Your task to perform on an android device: Go to Google Image 0: 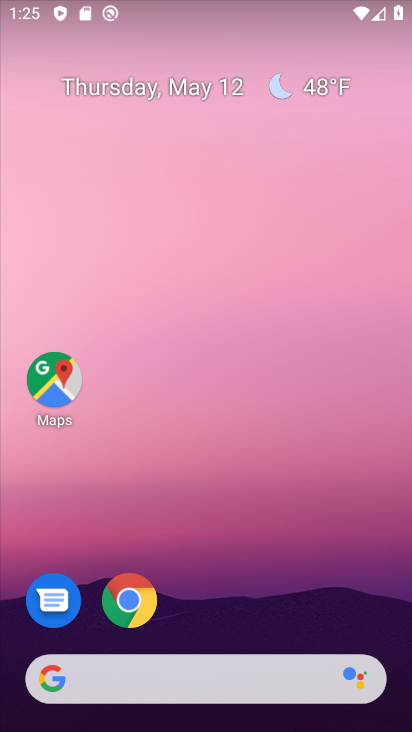
Step 0: drag from (240, 656) to (367, 182)
Your task to perform on an android device: Go to Google Image 1: 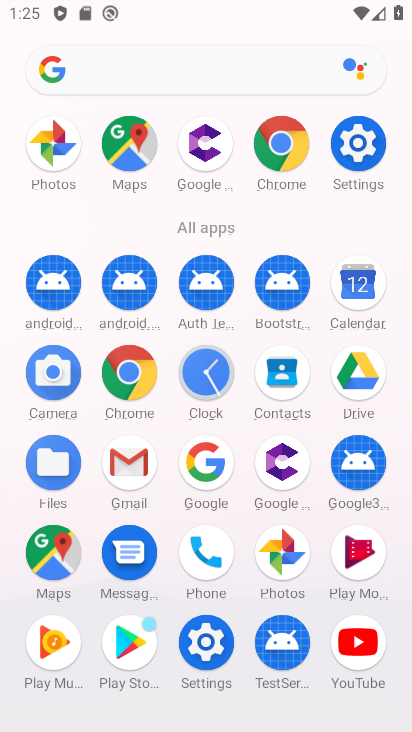
Step 1: click (216, 466)
Your task to perform on an android device: Go to Google Image 2: 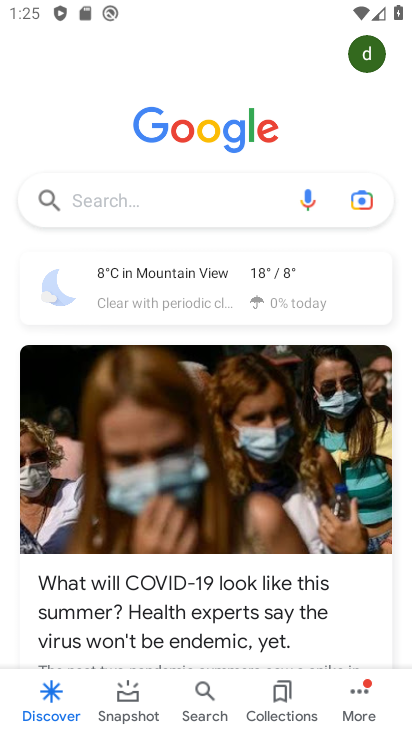
Step 2: task complete